Your task to perform on an android device: Go to Yahoo.com Image 0: 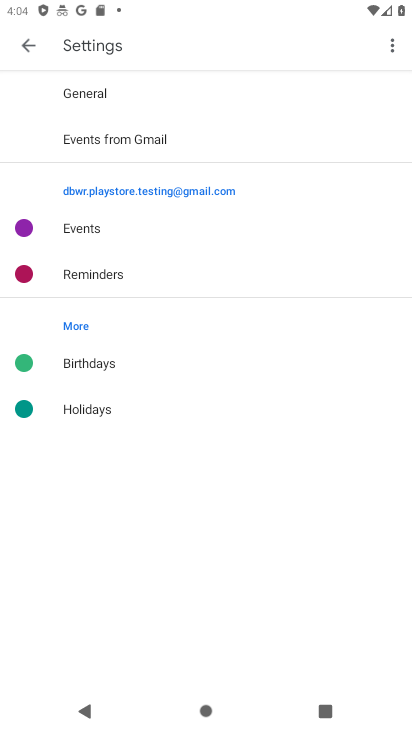
Step 0: press home button
Your task to perform on an android device: Go to Yahoo.com Image 1: 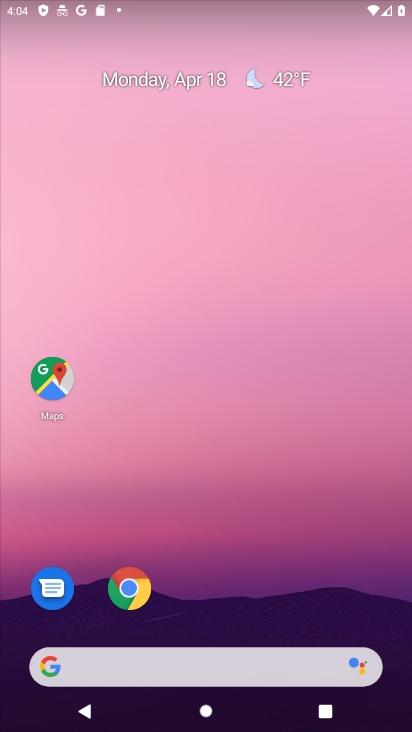
Step 1: click (126, 592)
Your task to perform on an android device: Go to Yahoo.com Image 2: 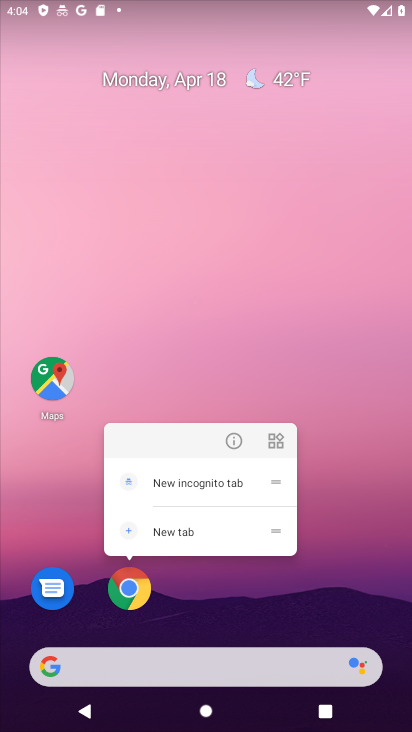
Step 2: click (139, 603)
Your task to perform on an android device: Go to Yahoo.com Image 3: 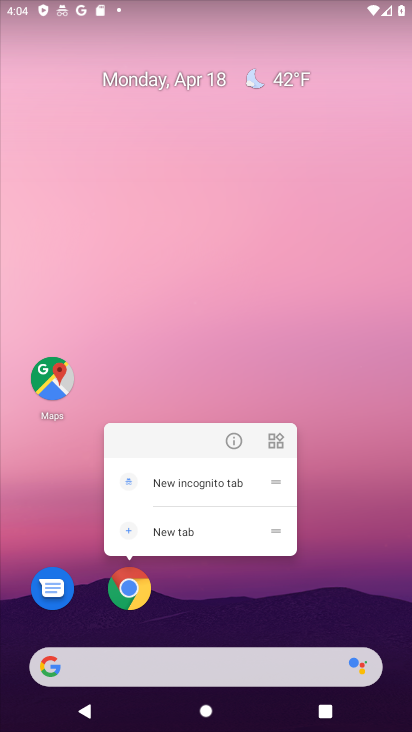
Step 3: click (138, 584)
Your task to perform on an android device: Go to Yahoo.com Image 4: 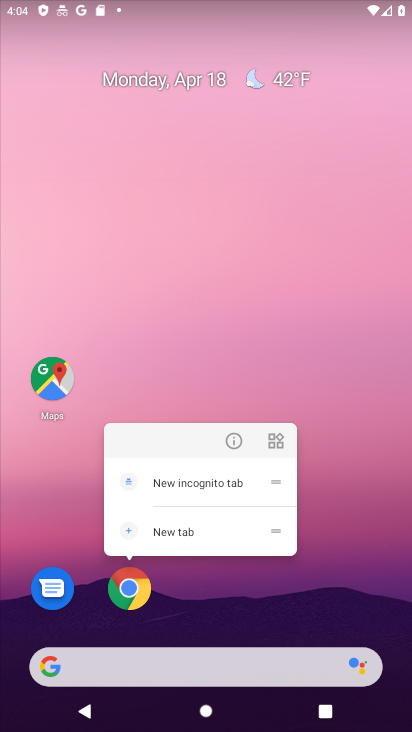
Step 4: click (116, 586)
Your task to perform on an android device: Go to Yahoo.com Image 5: 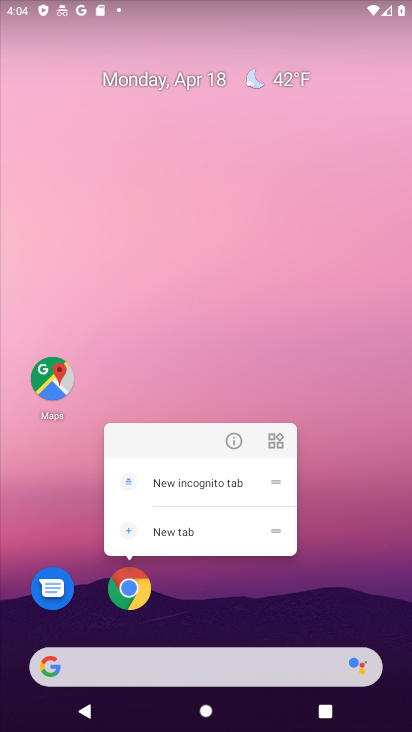
Step 5: click (133, 605)
Your task to perform on an android device: Go to Yahoo.com Image 6: 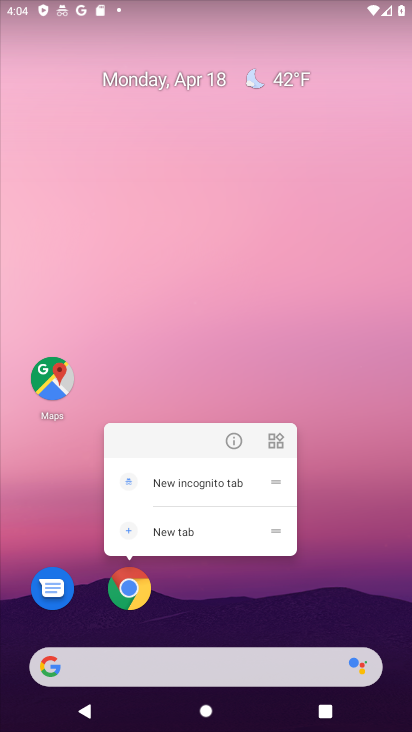
Step 6: click (133, 605)
Your task to perform on an android device: Go to Yahoo.com Image 7: 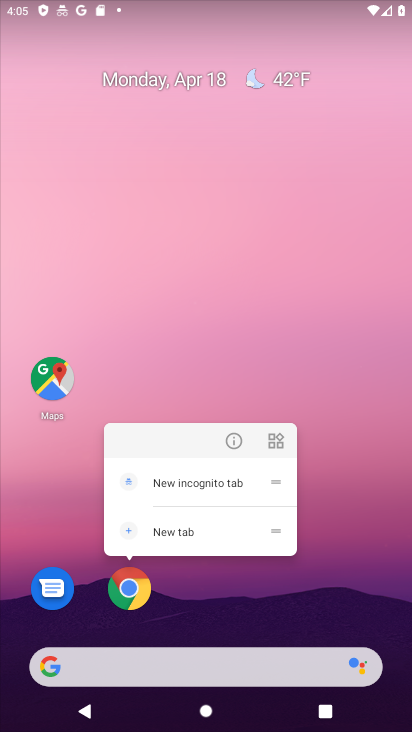
Step 7: click (134, 583)
Your task to perform on an android device: Go to Yahoo.com Image 8: 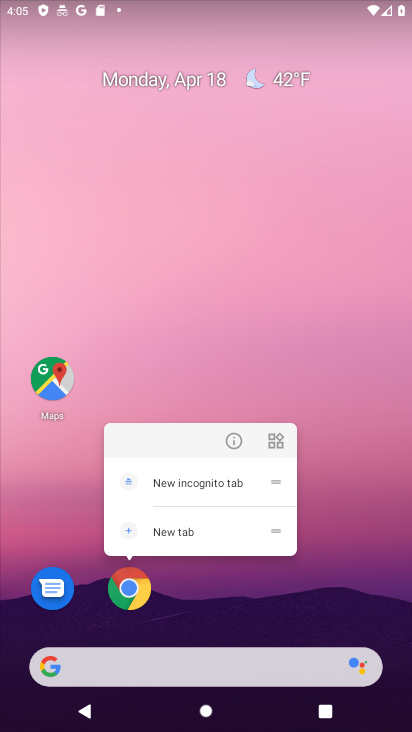
Step 8: click (134, 593)
Your task to perform on an android device: Go to Yahoo.com Image 9: 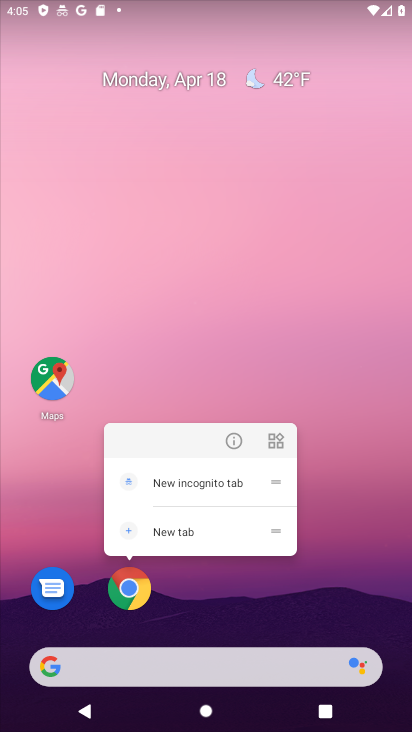
Step 9: click (237, 619)
Your task to perform on an android device: Go to Yahoo.com Image 10: 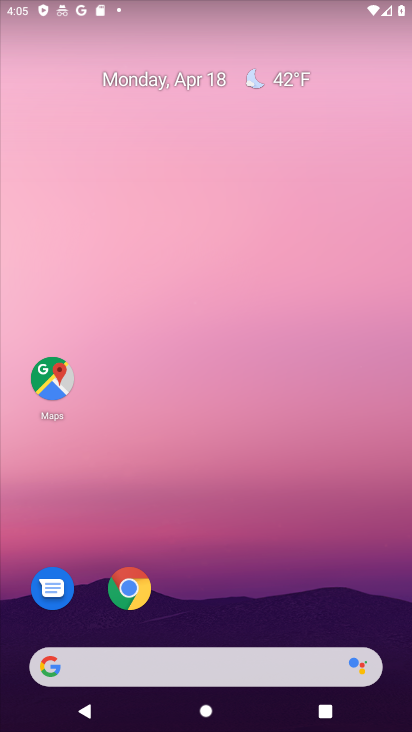
Step 10: click (125, 593)
Your task to perform on an android device: Go to Yahoo.com Image 11: 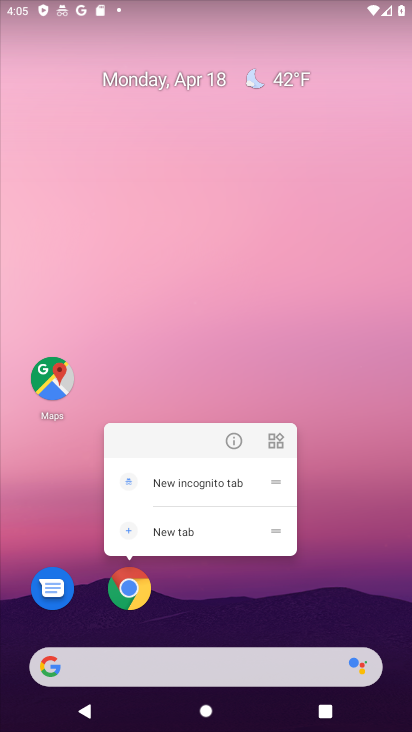
Step 11: click (131, 591)
Your task to perform on an android device: Go to Yahoo.com Image 12: 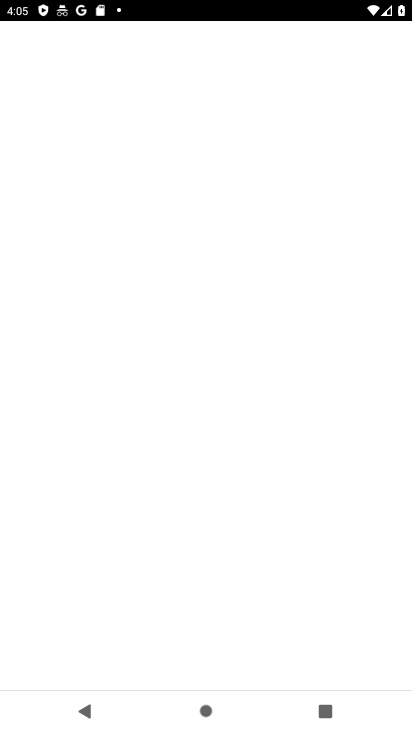
Step 12: click (131, 591)
Your task to perform on an android device: Go to Yahoo.com Image 13: 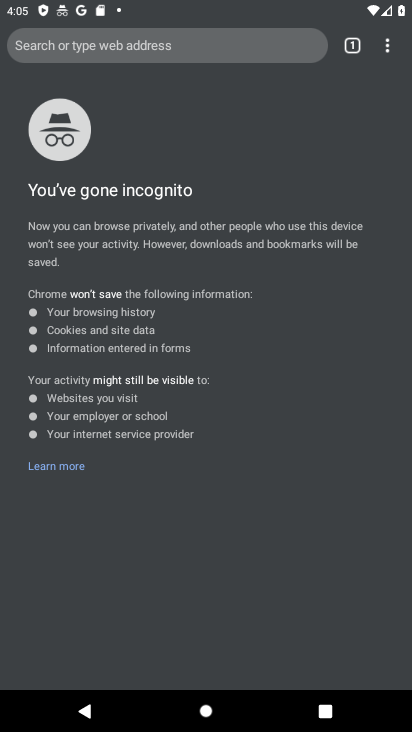
Step 13: click (217, 46)
Your task to perform on an android device: Go to Yahoo.com Image 14: 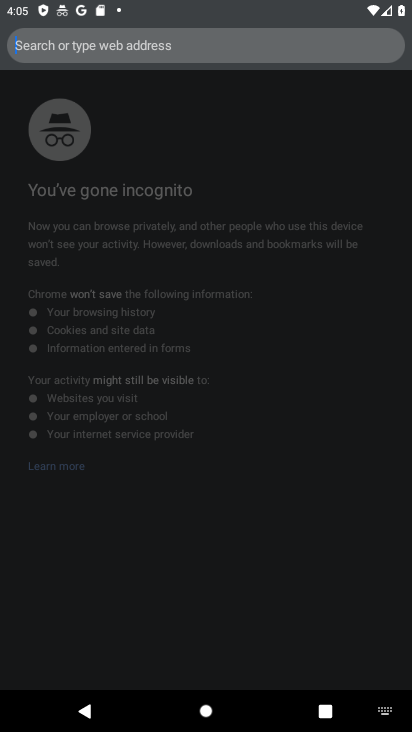
Step 14: press back button
Your task to perform on an android device: Go to Yahoo.com Image 15: 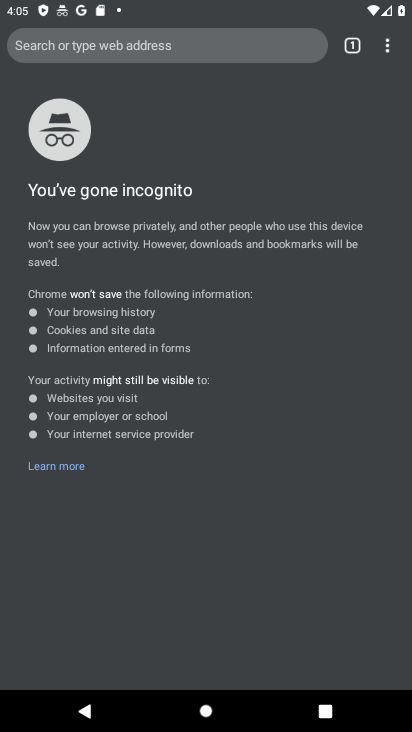
Step 15: click (354, 46)
Your task to perform on an android device: Go to Yahoo.com Image 16: 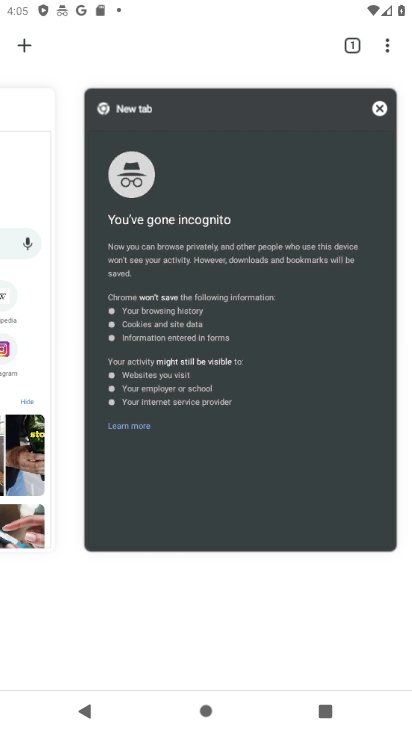
Step 16: click (25, 364)
Your task to perform on an android device: Go to Yahoo.com Image 17: 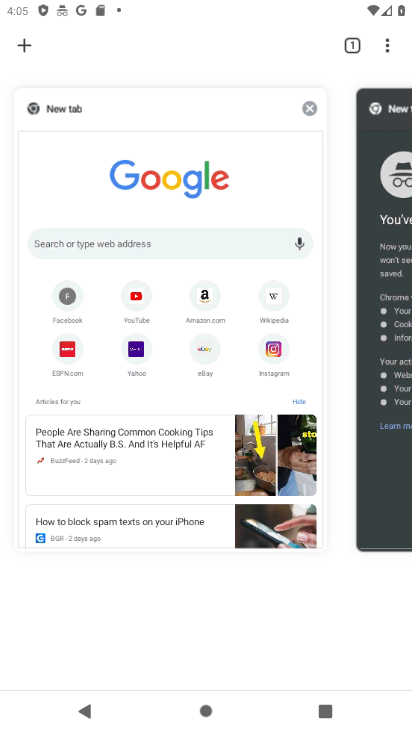
Step 17: click (85, 255)
Your task to perform on an android device: Go to Yahoo.com Image 18: 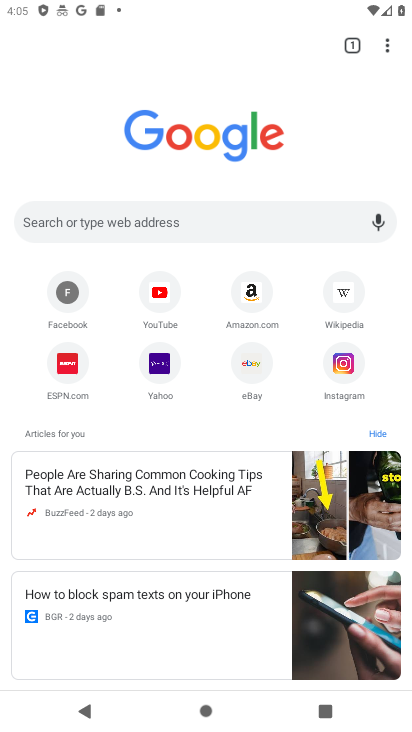
Step 18: click (156, 361)
Your task to perform on an android device: Go to Yahoo.com Image 19: 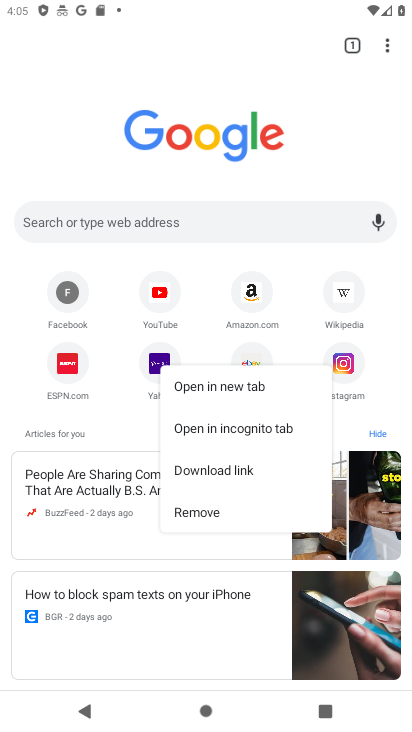
Step 19: click (107, 371)
Your task to perform on an android device: Go to Yahoo.com Image 20: 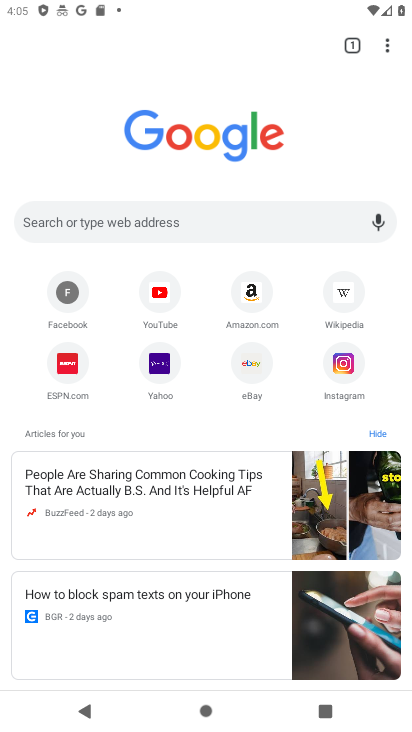
Step 20: click (155, 375)
Your task to perform on an android device: Go to Yahoo.com Image 21: 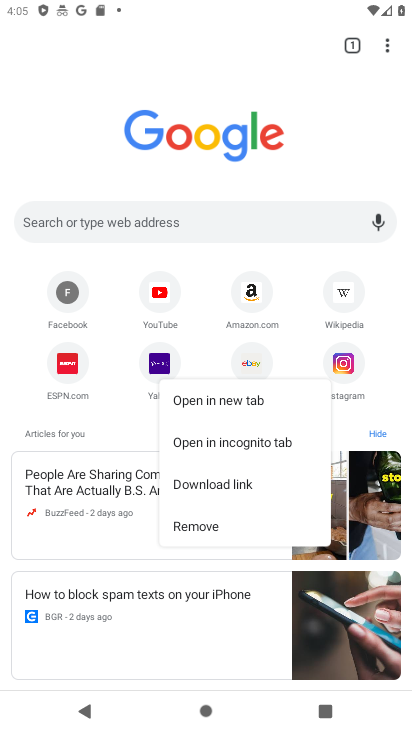
Step 21: click (158, 364)
Your task to perform on an android device: Go to Yahoo.com Image 22: 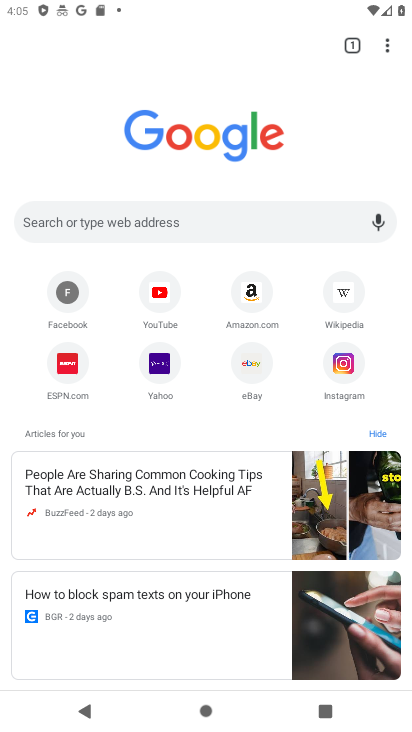
Step 22: click (121, 212)
Your task to perform on an android device: Go to Yahoo.com Image 23: 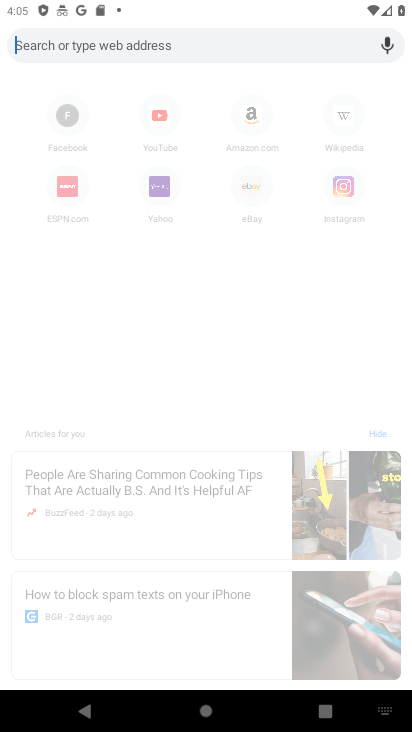
Step 23: type "yahoo.com"
Your task to perform on an android device: Go to Yahoo.com Image 24: 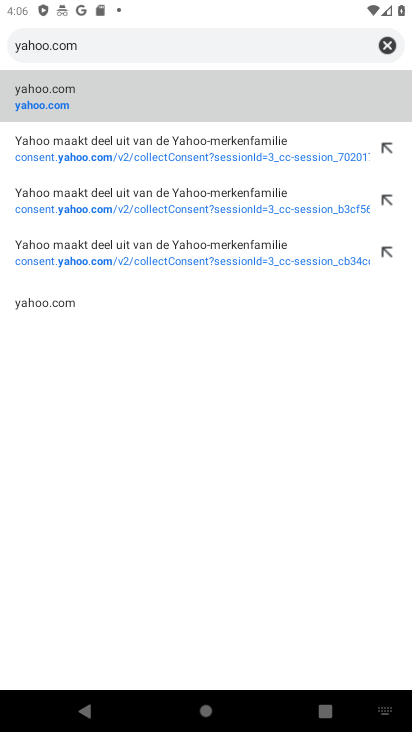
Step 24: click (44, 101)
Your task to perform on an android device: Go to Yahoo.com Image 25: 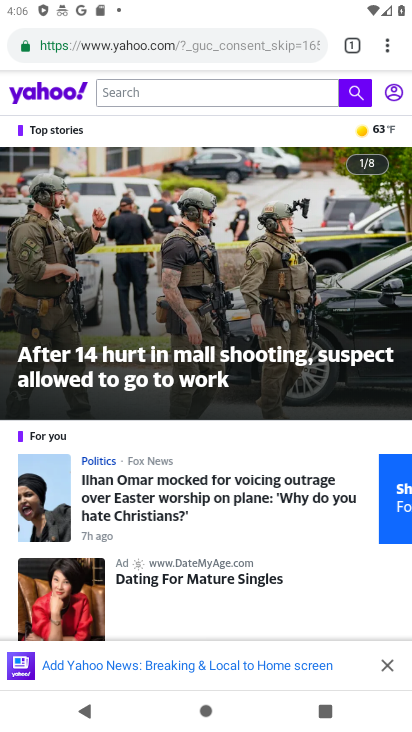
Step 25: task complete